Your task to perform on an android device: turn on priority inbox in the gmail app Image 0: 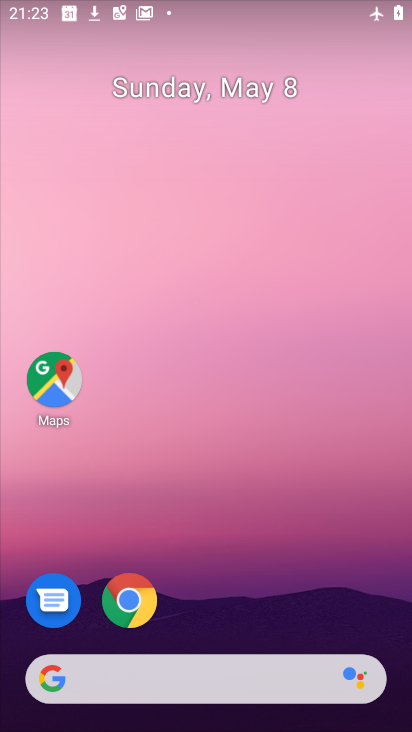
Step 0: drag from (288, 698) to (270, 175)
Your task to perform on an android device: turn on priority inbox in the gmail app Image 1: 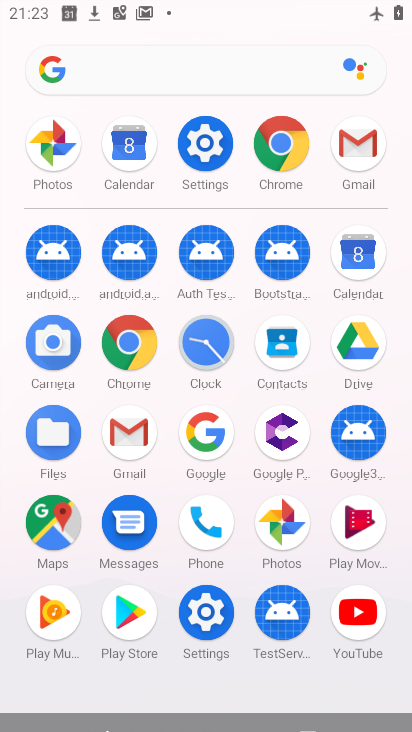
Step 1: click (187, 137)
Your task to perform on an android device: turn on priority inbox in the gmail app Image 2: 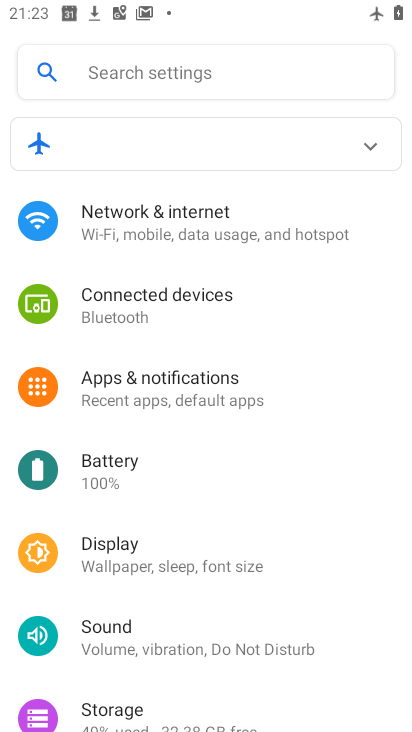
Step 2: press home button
Your task to perform on an android device: turn on priority inbox in the gmail app Image 3: 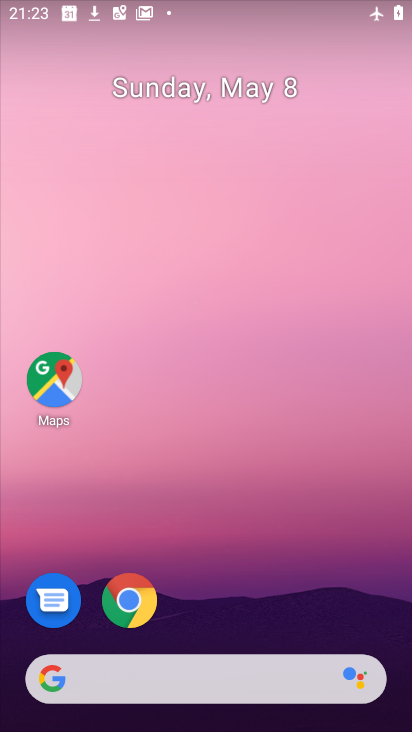
Step 3: drag from (285, 709) to (411, 184)
Your task to perform on an android device: turn on priority inbox in the gmail app Image 4: 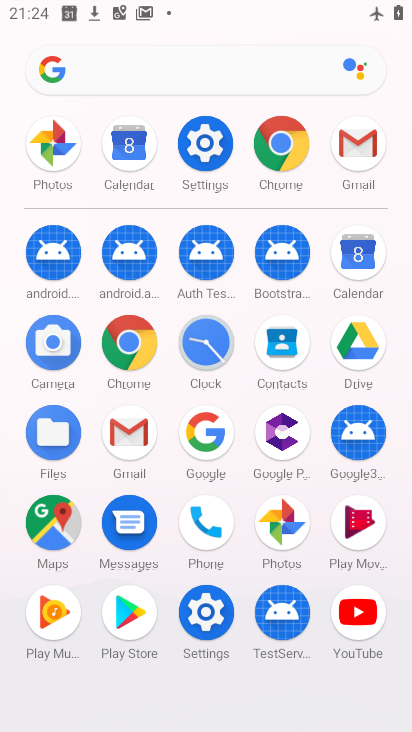
Step 4: click (347, 138)
Your task to perform on an android device: turn on priority inbox in the gmail app Image 5: 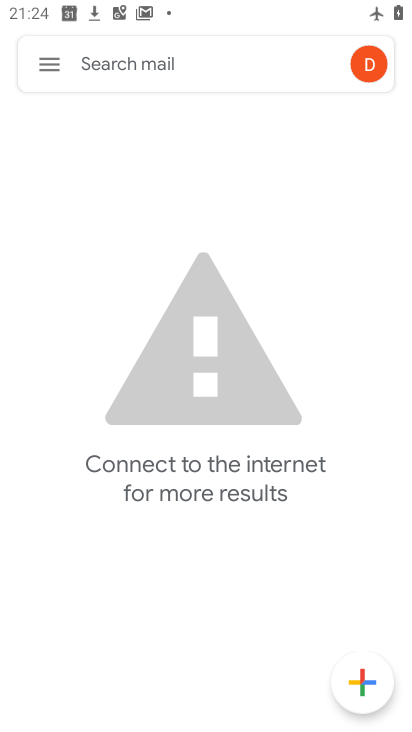
Step 5: click (67, 73)
Your task to perform on an android device: turn on priority inbox in the gmail app Image 6: 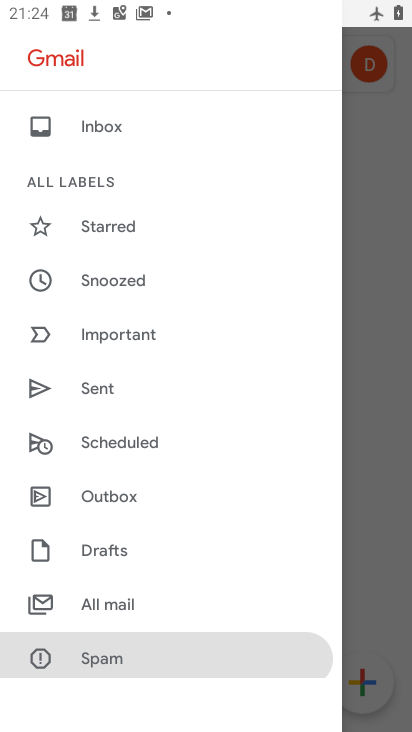
Step 6: drag from (163, 565) to (274, 230)
Your task to perform on an android device: turn on priority inbox in the gmail app Image 7: 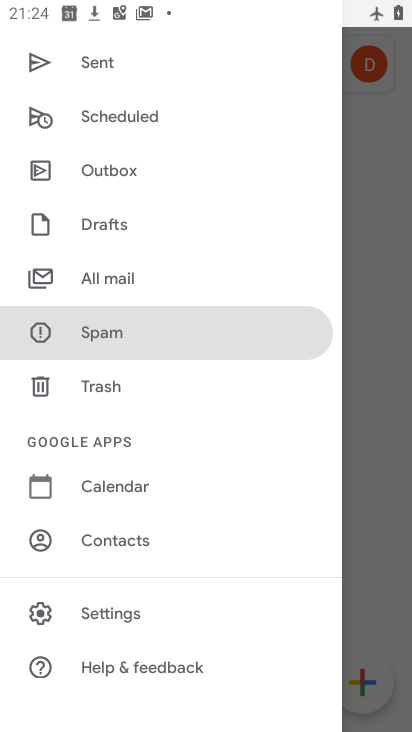
Step 7: click (105, 611)
Your task to perform on an android device: turn on priority inbox in the gmail app Image 8: 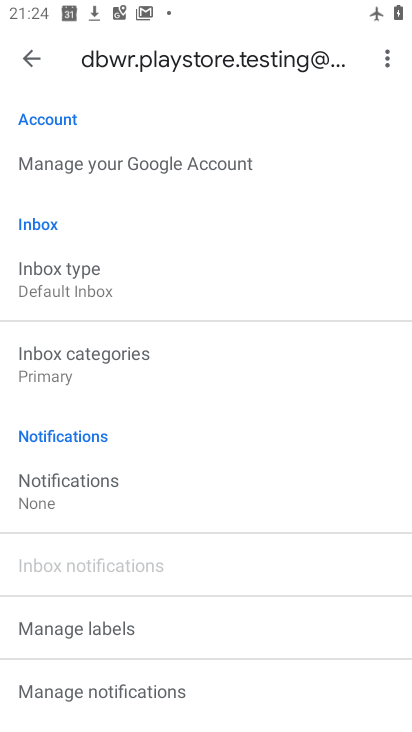
Step 8: click (87, 303)
Your task to perform on an android device: turn on priority inbox in the gmail app Image 9: 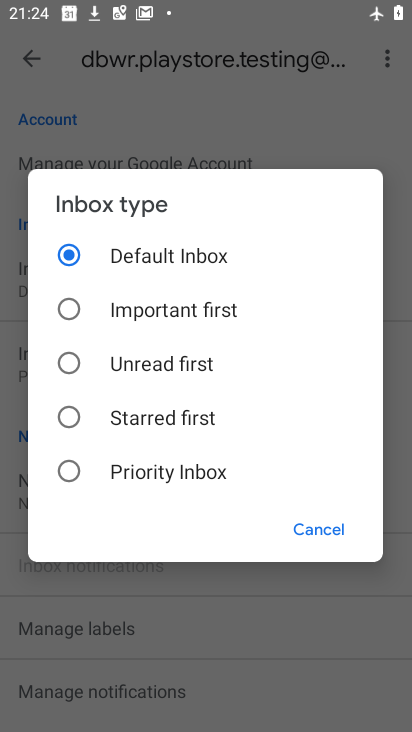
Step 9: click (189, 459)
Your task to perform on an android device: turn on priority inbox in the gmail app Image 10: 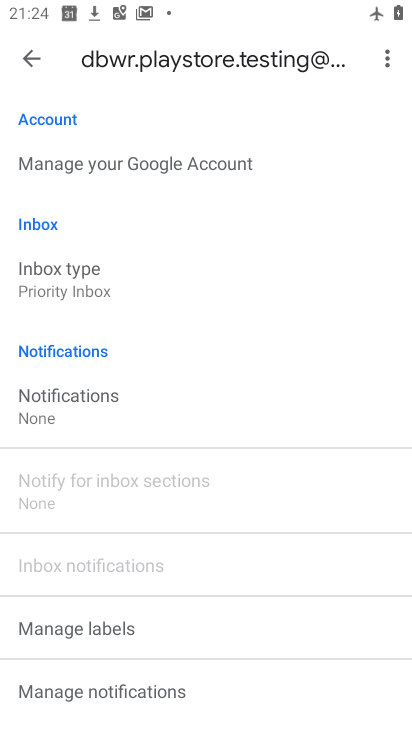
Step 10: task complete